Your task to perform on an android device: Check the weather Image 0: 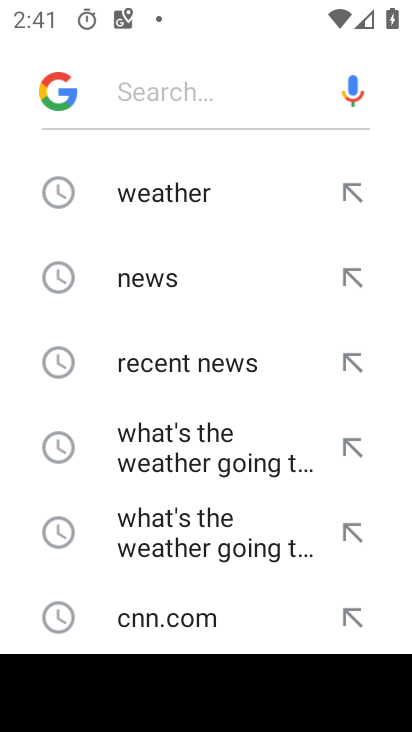
Step 0: click (175, 190)
Your task to perform on an android device: Check the weather Image 1: 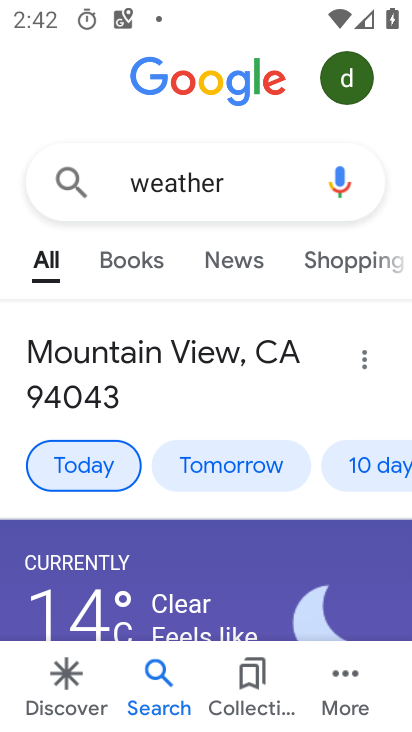
Step 1: drag from (165, 622) to (167, 298)
Your task to perform on an android device: Check the weather Image 2: 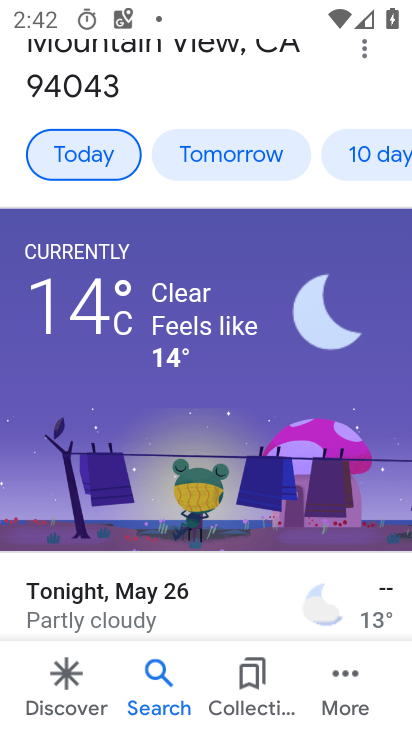
Step 2: drag from (131, 616) to (135, 243)
Your task to perform on an android device: Check the weather Image 3: 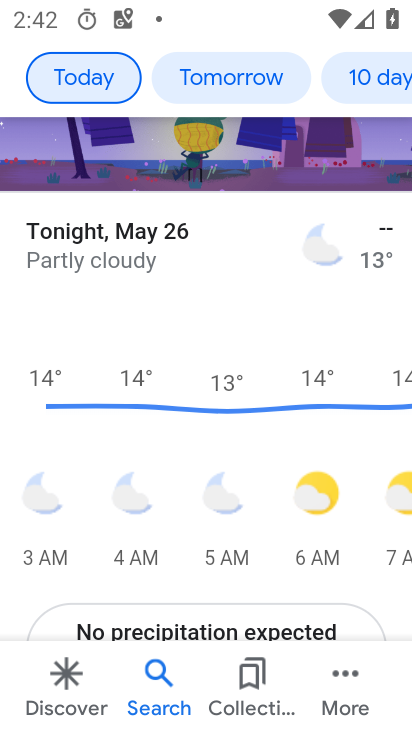
Step 3: click (85, 77)
Your task to perform on an android device: Check the weather Image 4: 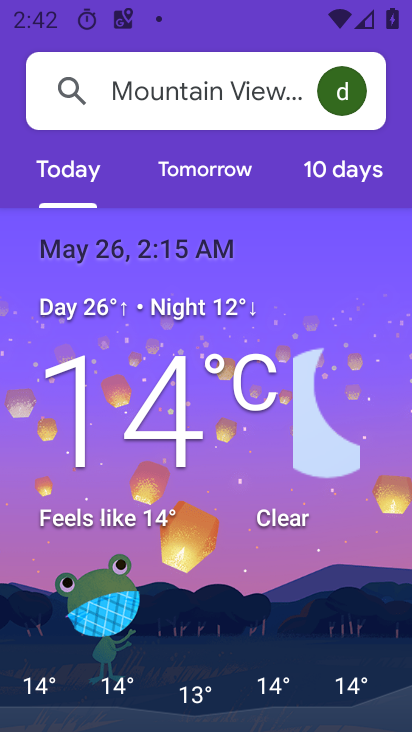
Step 4: task complete